Your task to perform on an android device: Open internet settings Image 0: 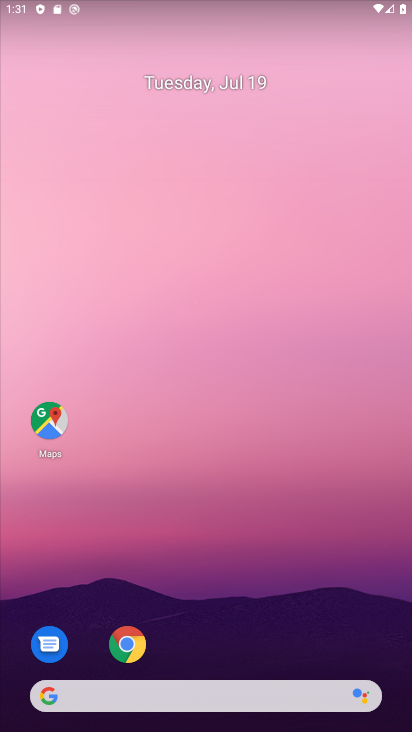
Step 0: drag from (212, 686) to (190, 78)
Your task to perform on an android device: Open internet settings Image 1: 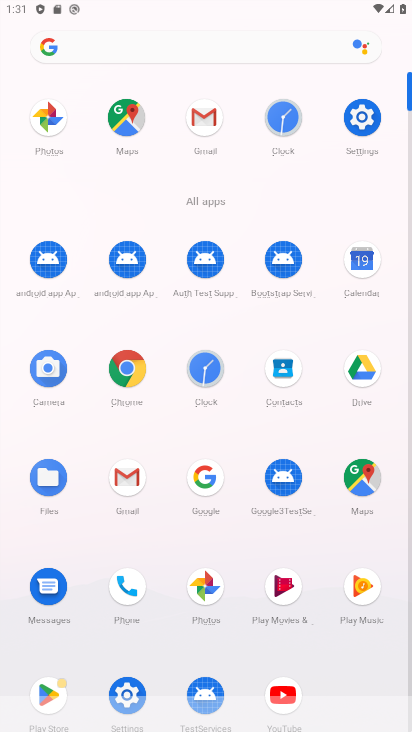
Step 1: click (363, 124)
Your task to perform on an android device: Open internet settings Image 2: 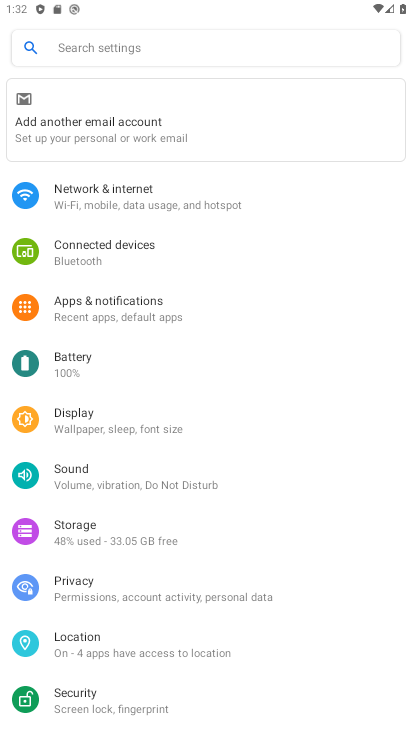
Step 2: click (128, 204)
Your task to perform on an android device: Open internet settings Image 3: 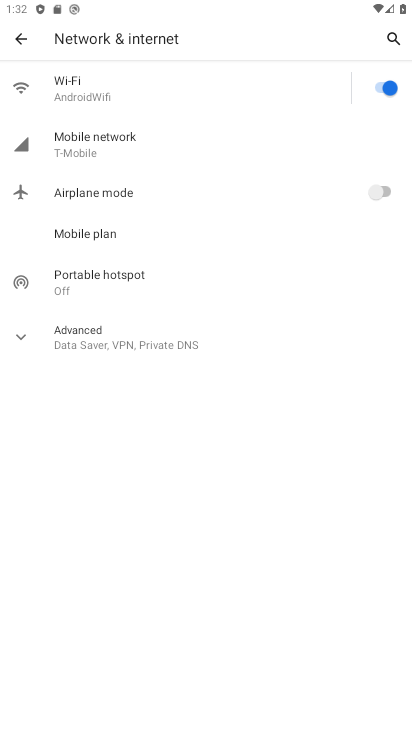
Step 3: click (127, 142)
Your task to perform on an android device: Open internet settings Image 4: 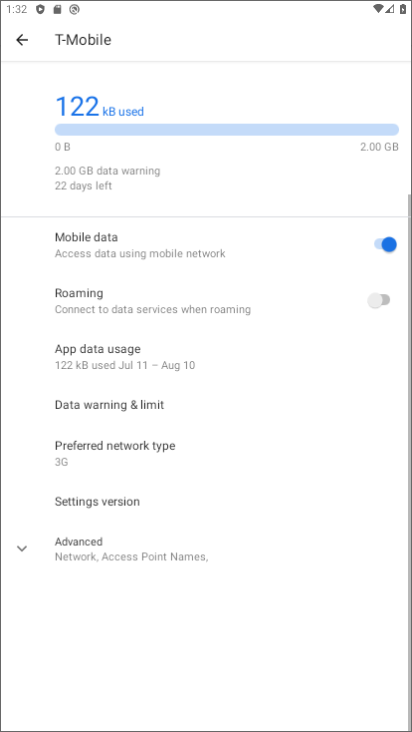
Step 4: task complete